Your task to perform on an android device: turn vacation reply on in the gmail app Image 0: 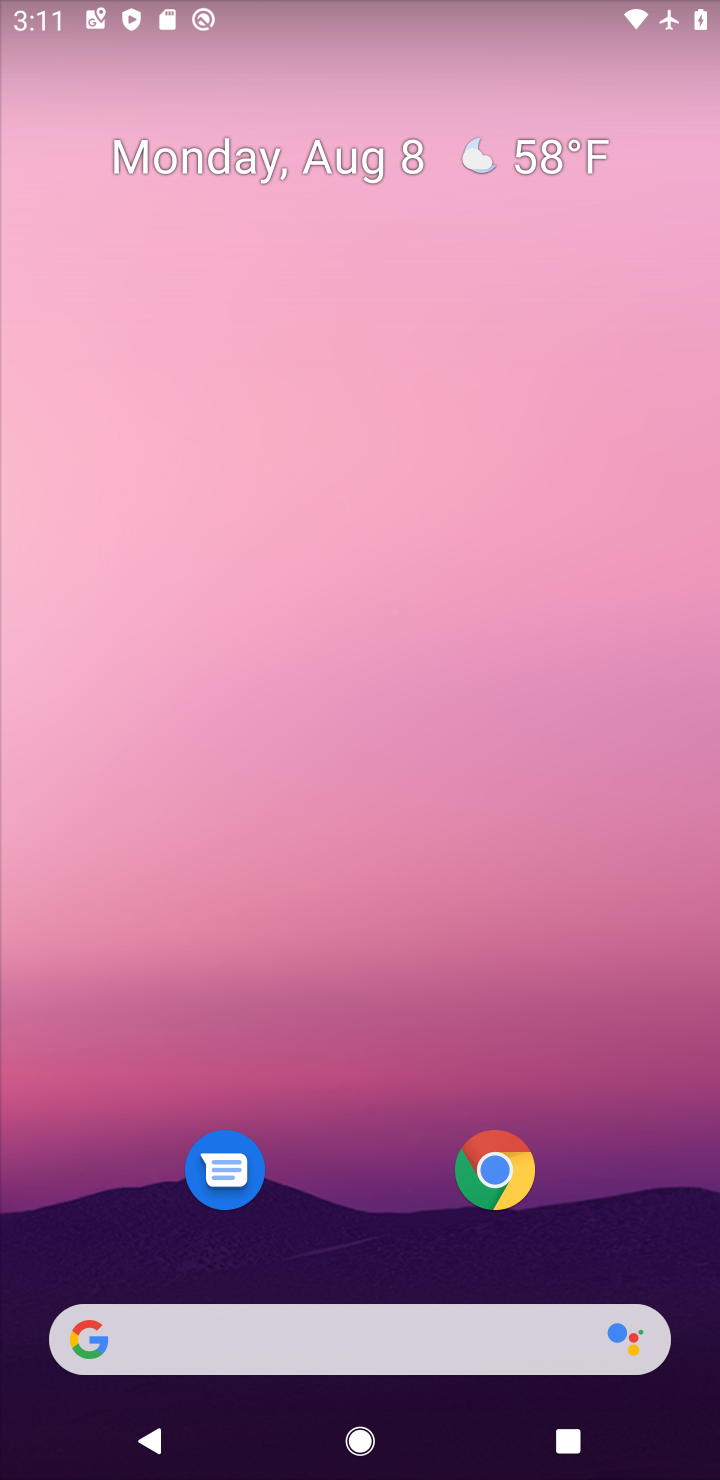
Step 0: drag from (364, 1200) to (374, 402)
Your task to perform on an android device: turn vacation reply on in the gmail app Image 1: 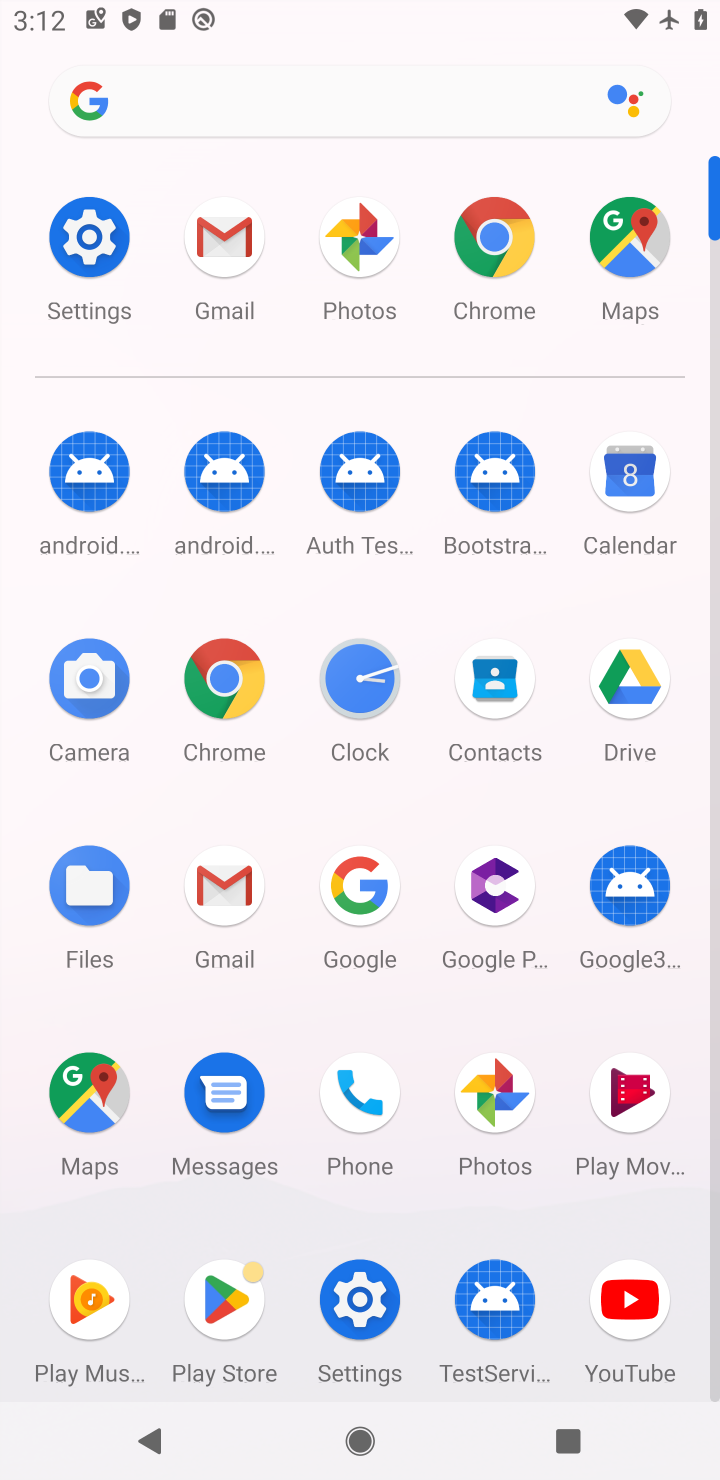
Step 1: click (258, 904)
Your task to perform on an android device: turn vacation reply on in the gmail app Image 2: 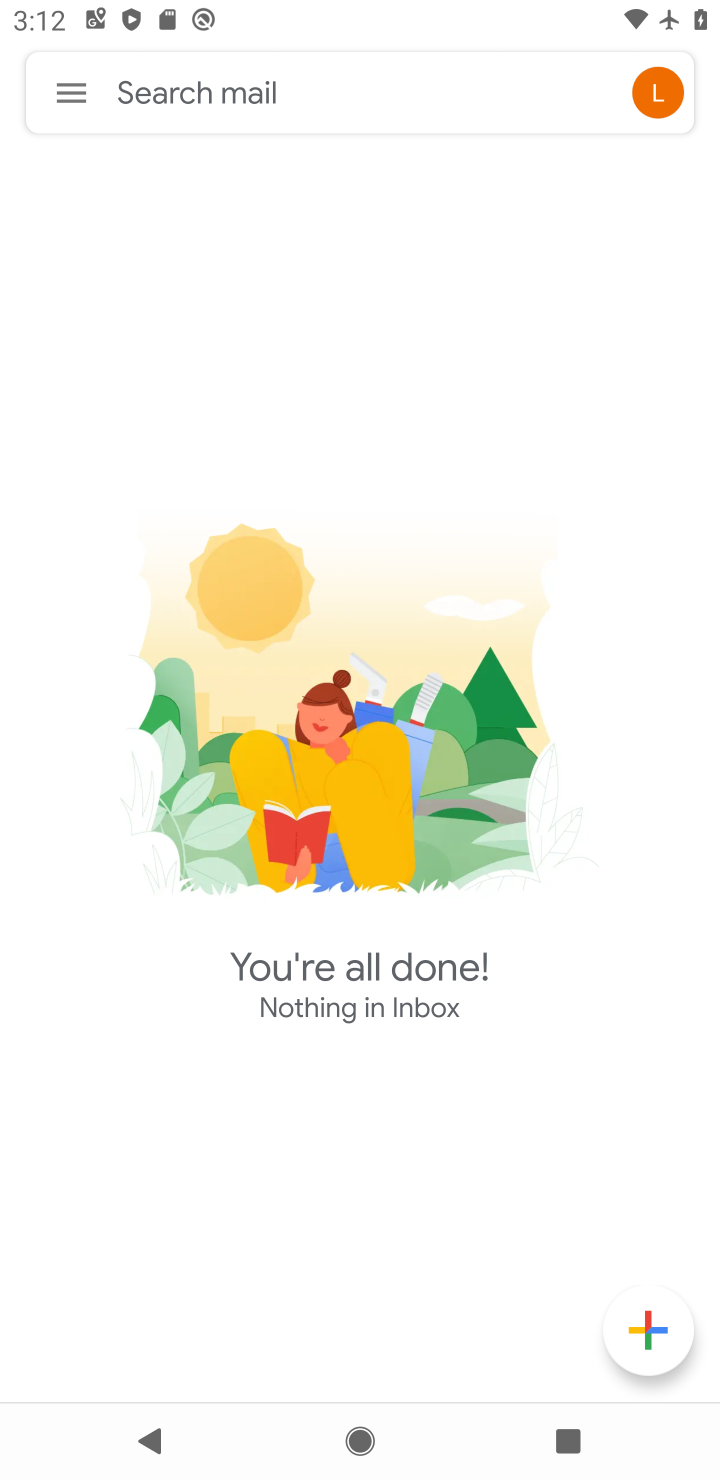
Step 2: click (67, 112)
Your task to perform on an android device: turn vacation reply on in the gmail app Image 3: 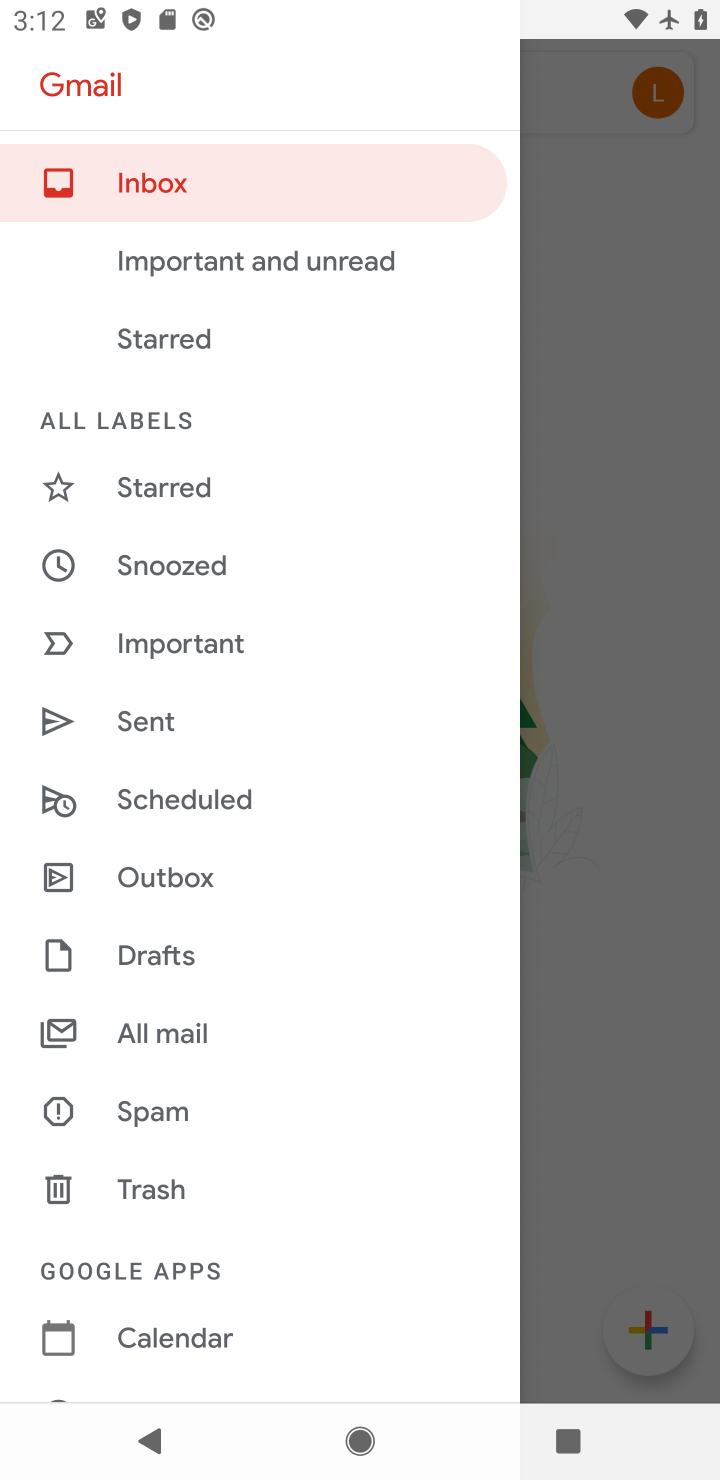
Step 3: drag from (240, 1251) to (240, 665)
Your task to perform on an android device: turn vacation reply on in the gmail app Image 4: 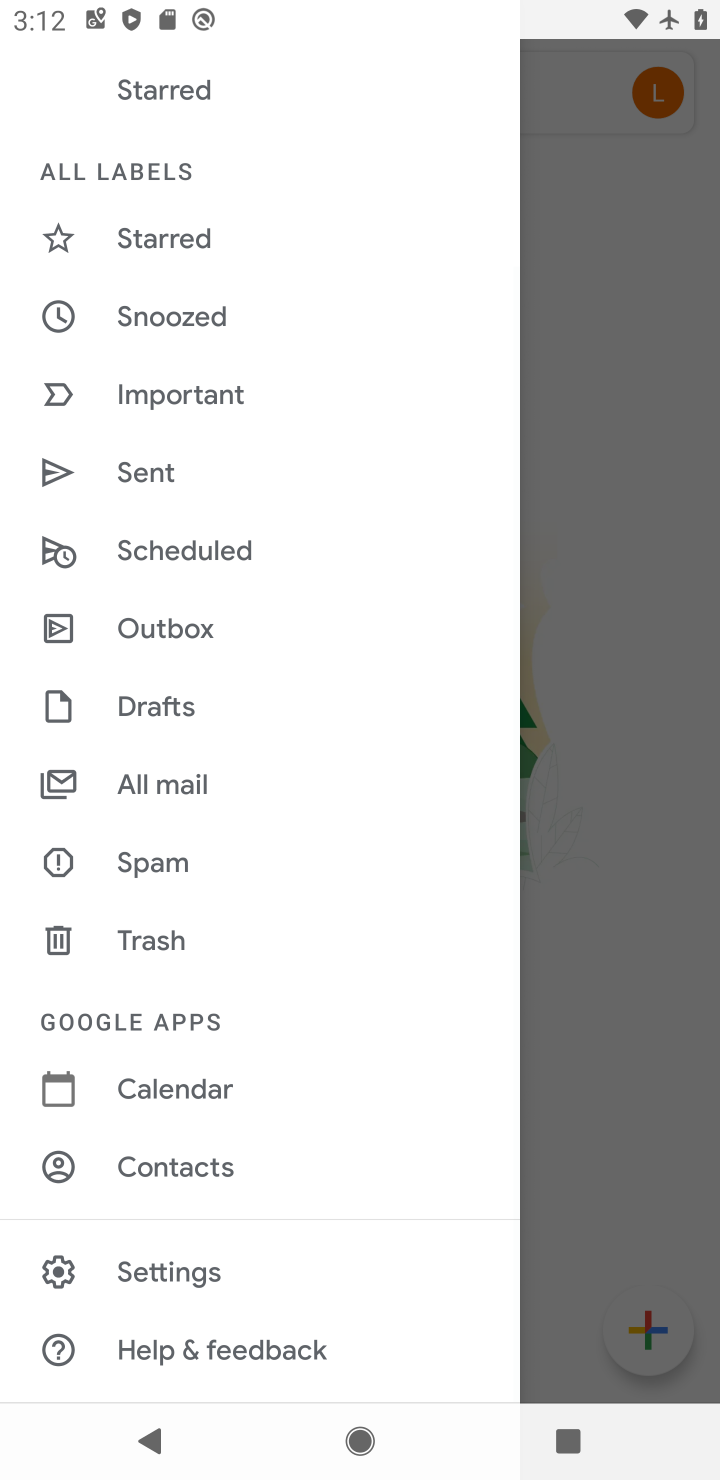
Step 4: click (200, 1268)
Your task to perform on an android device: turn vacation reply on in the gmail app Image 5: 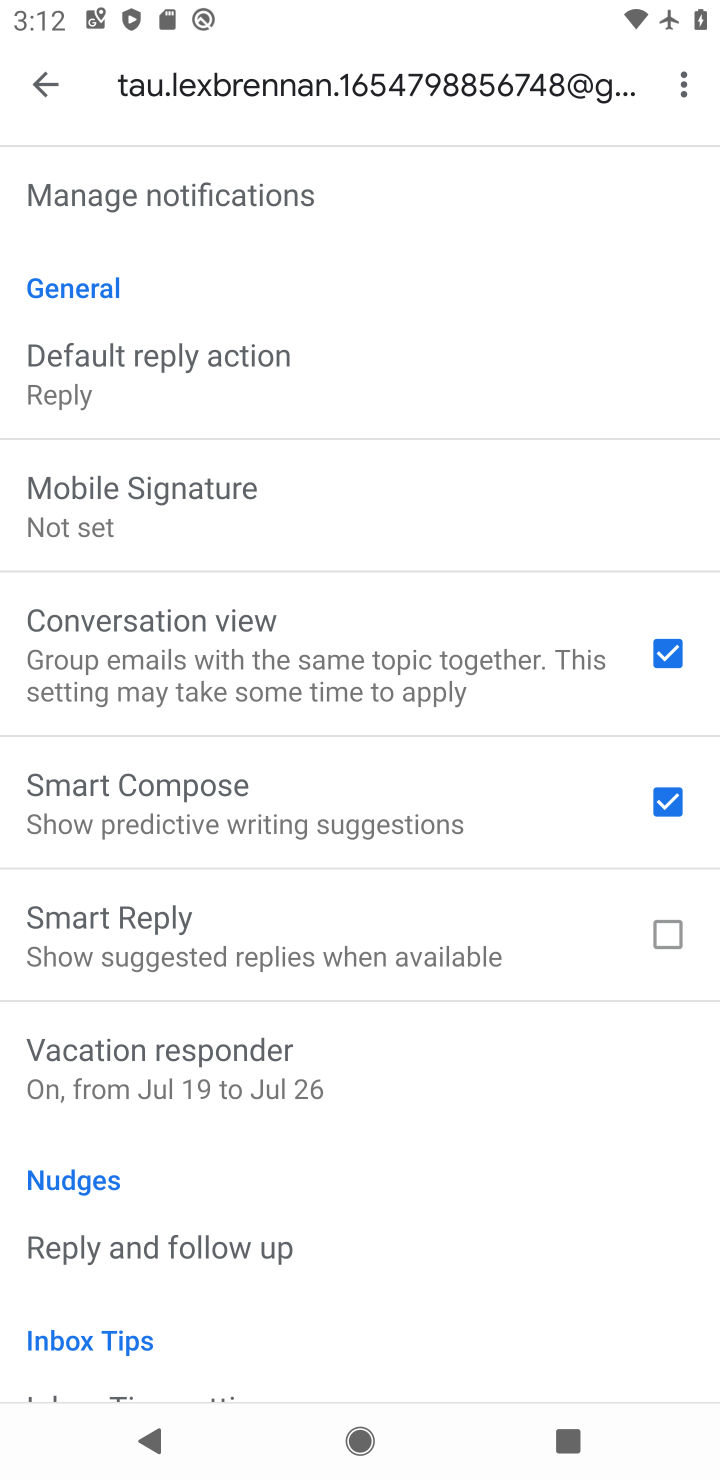
Step 5: click (320, 1039)
Your task to perform on an android device: turn vacation reply on in the gmail app Image 6: 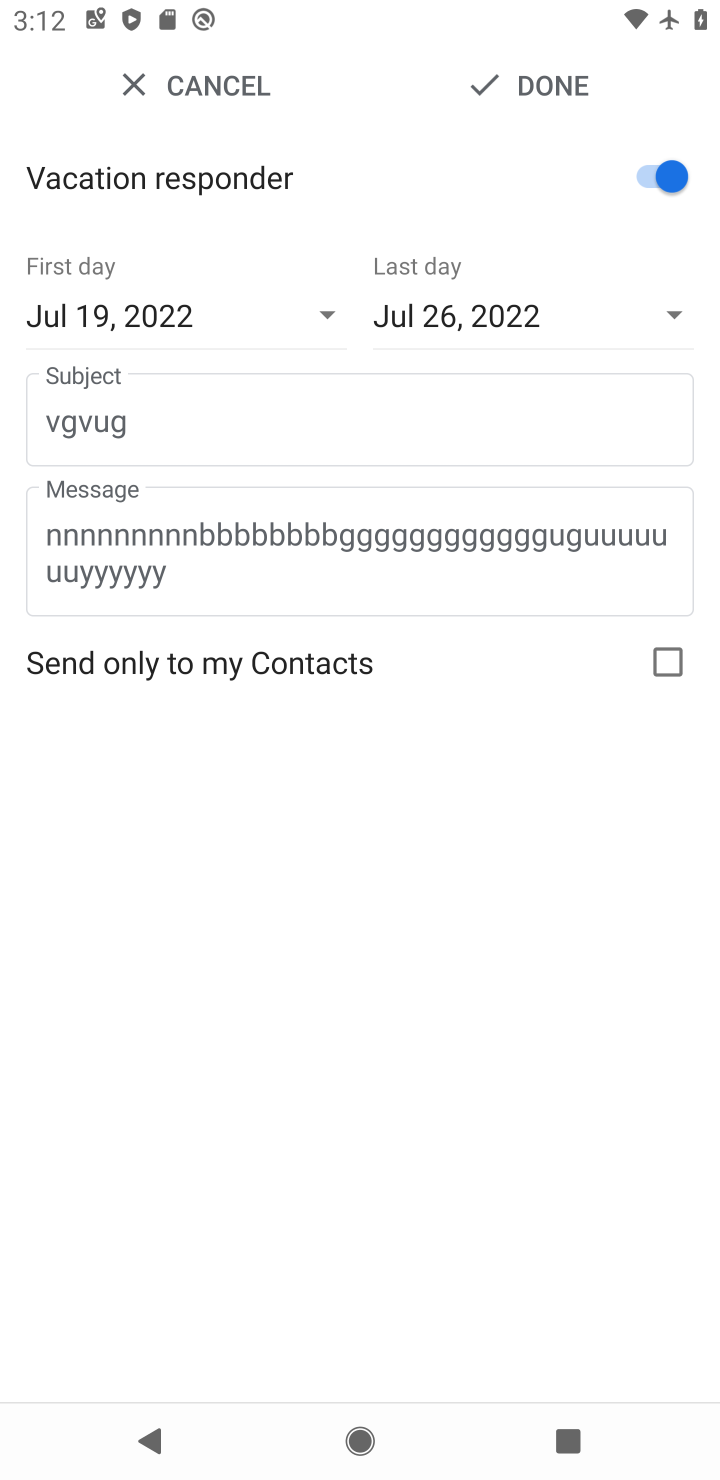
Step 6: task complete